Your task to perform on an android device: turn on javascript in the chrome app Image 0: 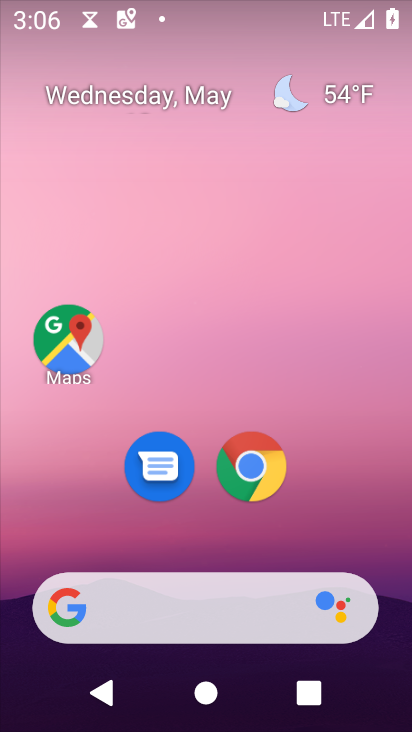
Step 0: click (265, 473)
Your task to perform on an android device: turn on javascript in the chrome app Image 1: 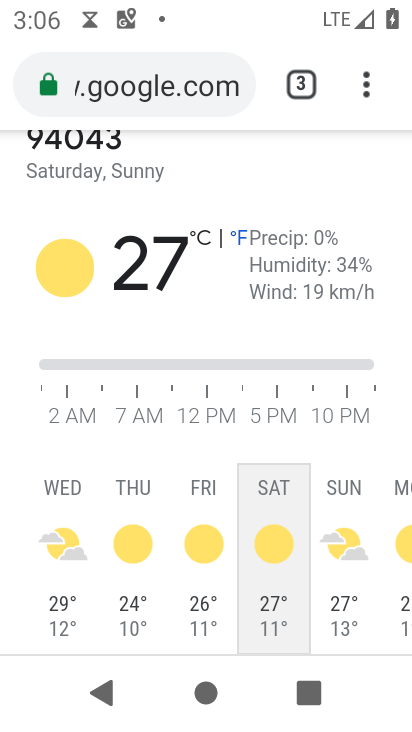
Step 1: click (361, 86)
Your task to perform on an android device: turn on javascript in the chrome app Image 2: 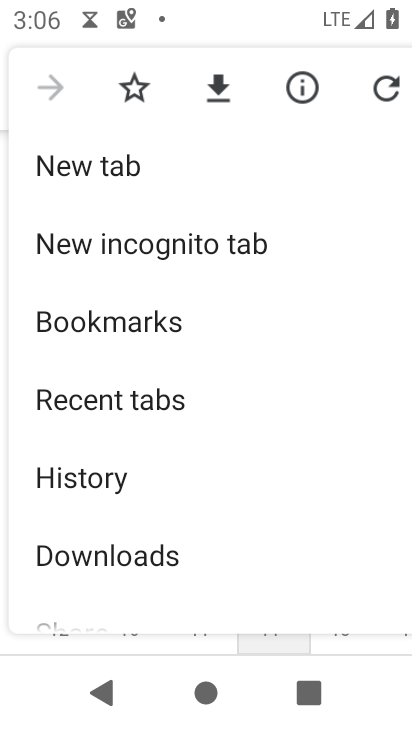
Step 2: drag from (282, 585) to (204, 191)
Your task to perform on an android device: turn on javascript in the chrome app Image 3: 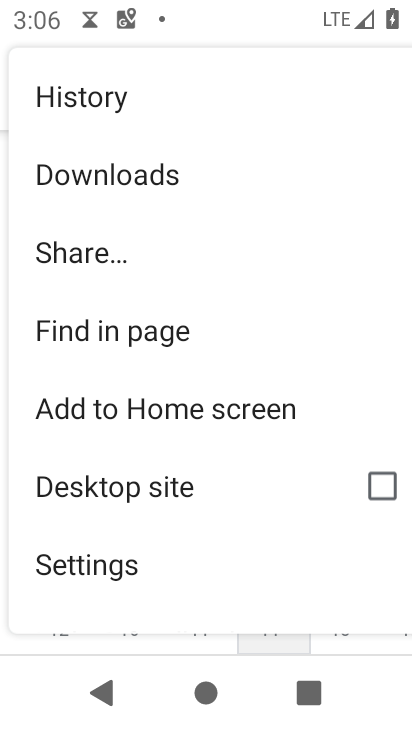
Step 3: click (187, 568)
Your task to perform on an android device: turn on javascript in the chrome app Image 4: 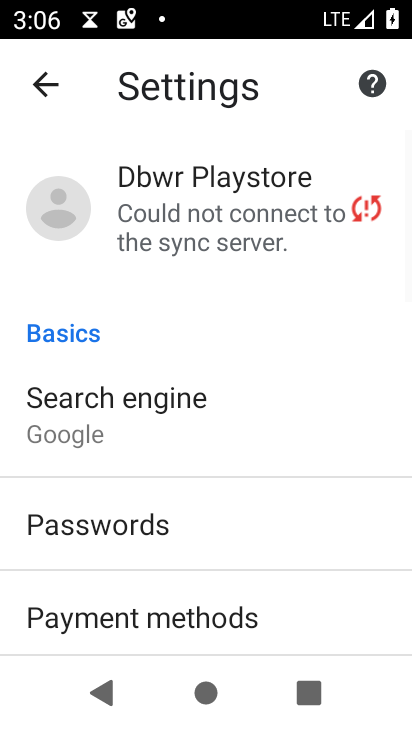
Step 4: drag from (301, 603) to (252, 201)
Your task to perform on an android device: turn on javascript in the chrome app Image 5: 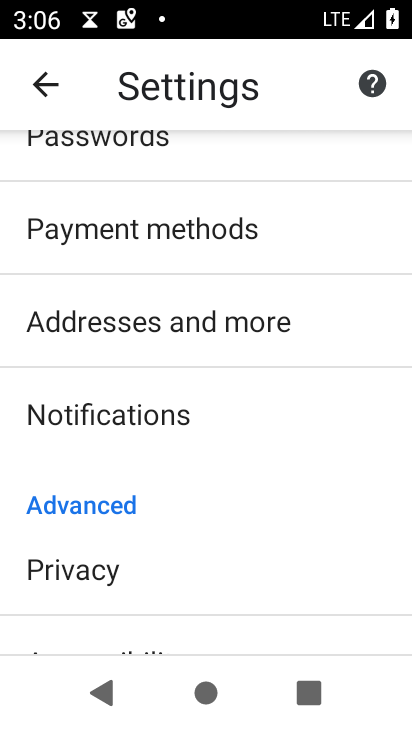
Step 5: drag from (248, 541) to (234, 178)
Your task to perform on an android device: turn on javascript in the chrome app Image 6: 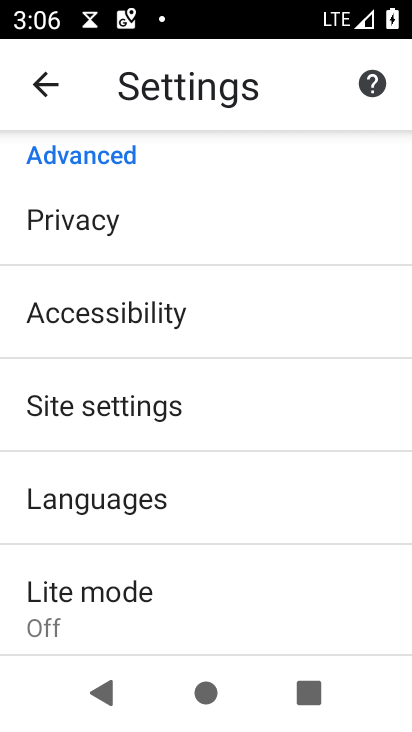
Step 6: click (229, 388)
Your task to perform on an android device: turn on javascript in the chrome app Image 7: 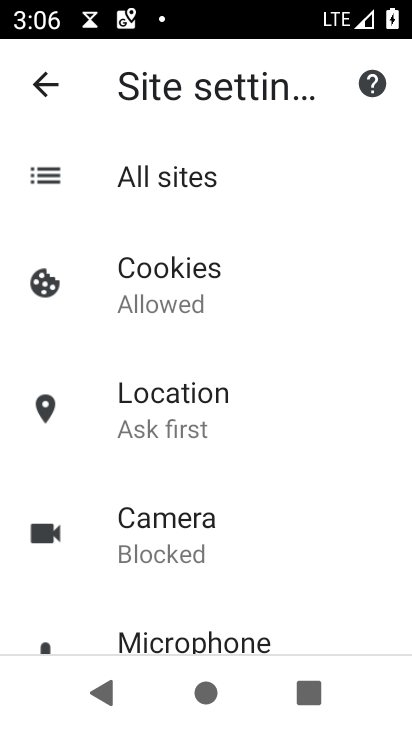
Step 7: drag from (286, 646) to (267, 297)
Your task to perform on an android device: turn on javascript in the chrome app Image 8: 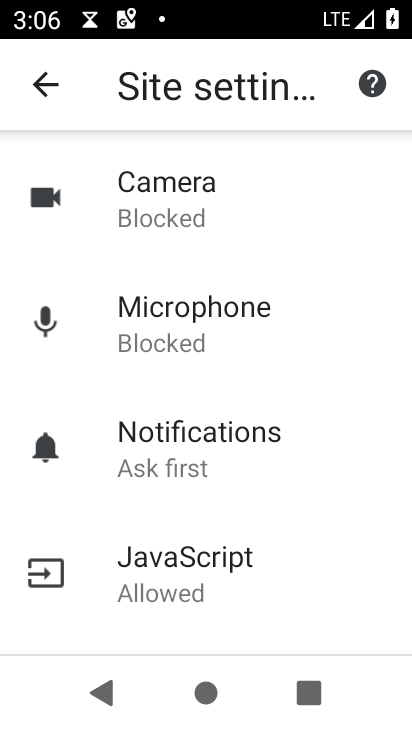
Step 8: click (249, 556)
Your task to perform on an android device: turn on javascript in the chrome app Image 9: 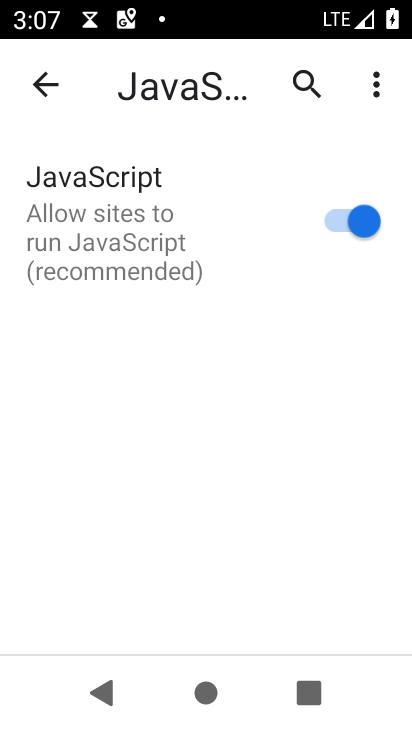
Step 9: task complete